Your task to perform on an android device: Open Reddit.com Image 0: 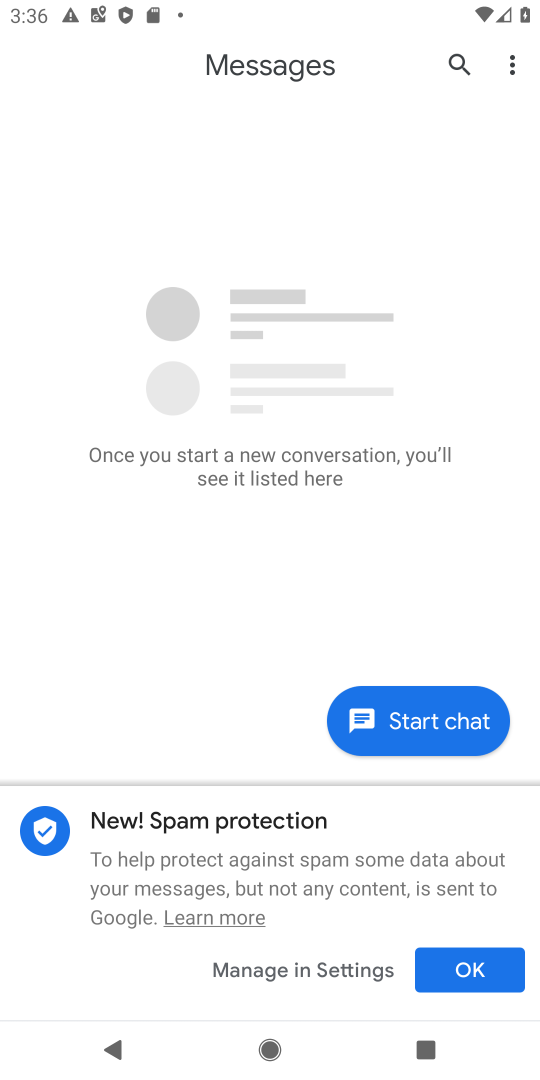
Step 0: press back button
Your task to perform on an android device: Open Reddit.com Image 1: 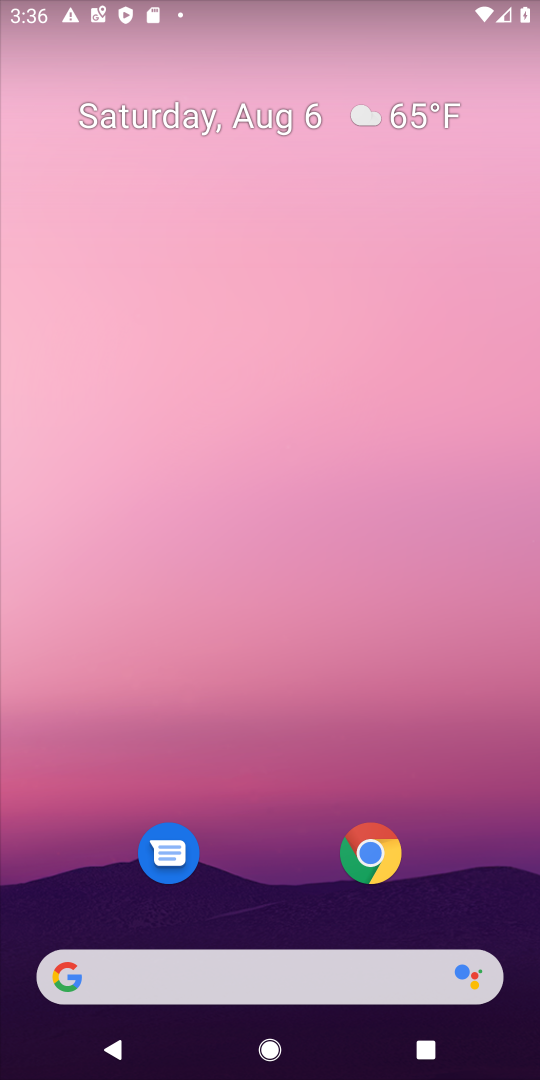
Step 1: click (384, 851)
Your task to perform on an android device: Open Reddit.com Image 2: 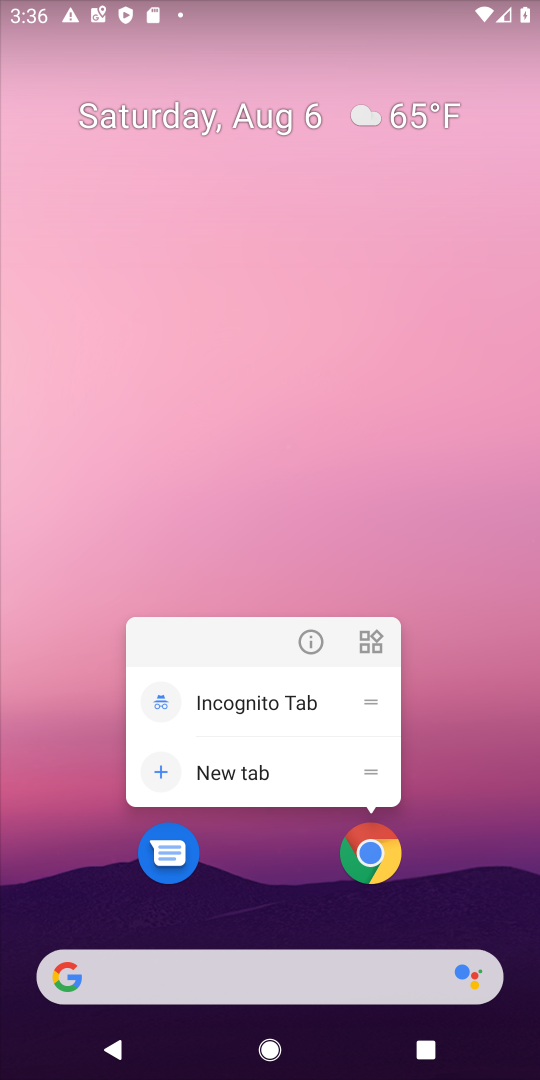
Step 2: click (385, 848)
Your task to perform on an android device: Open Reddit.com Image 3: 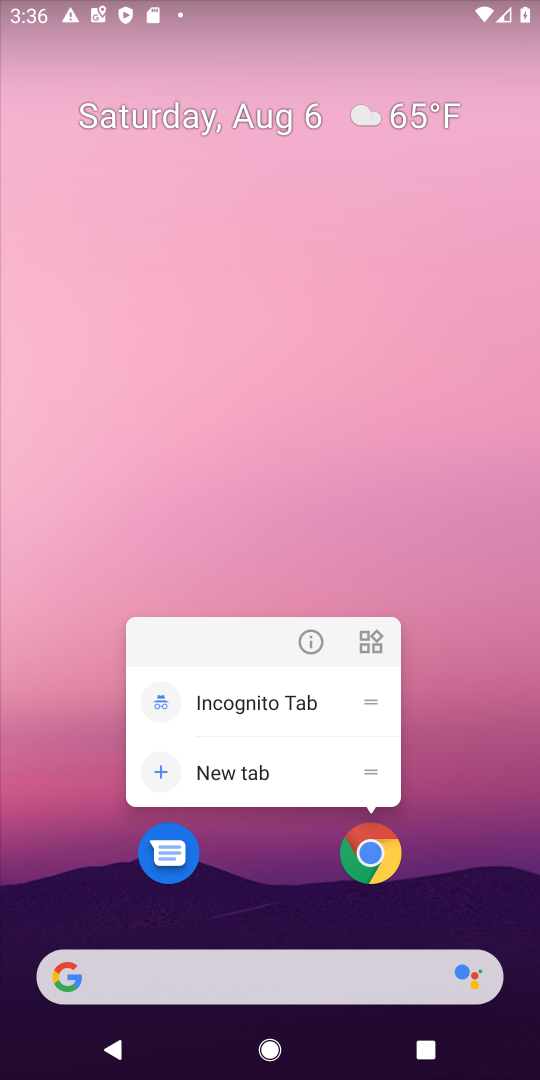
Step 3: click (366, 840)
Your task to perform on an android device: Open Reddit.com Image 4: 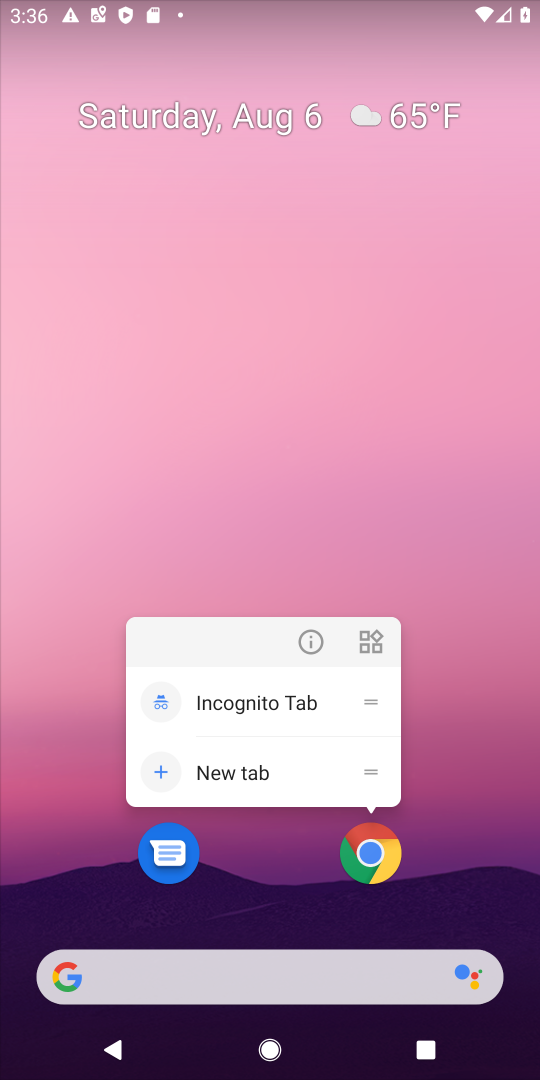
Step 4: click (364, 864)
Your task to perform on an android device: Open Reddit.com Image 5: 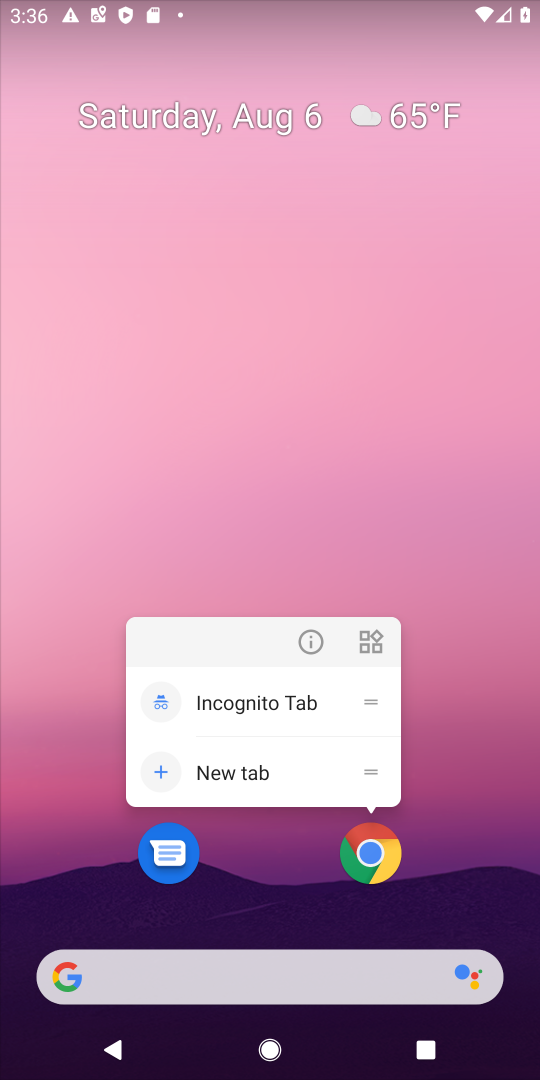
Step 5: click (381, 843)
Your task to perform on an android device: Open Reddit.com Image 6: 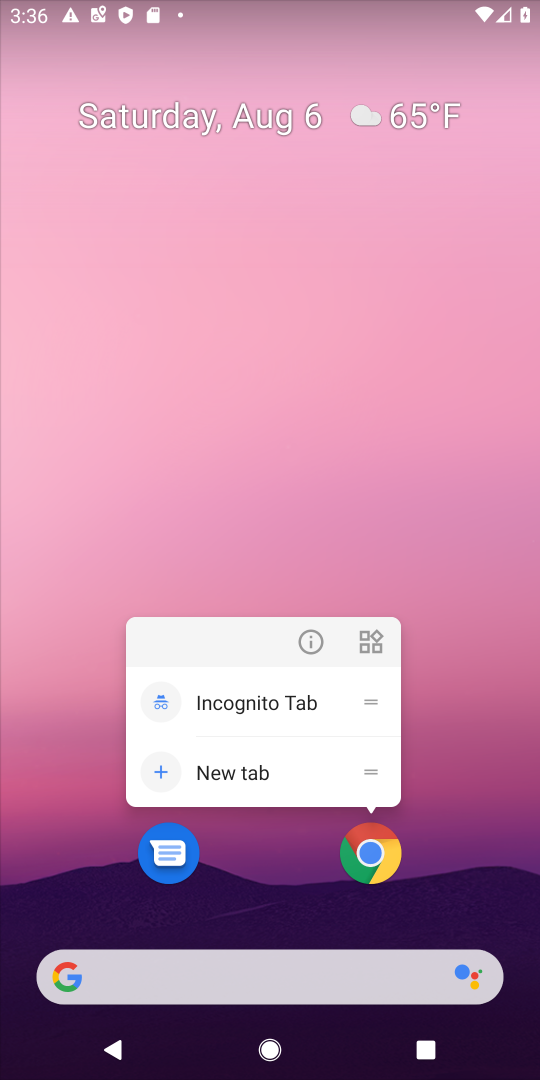
Step 6: click (381, 843)
Your task to perform on an android device: Open Reddit.com Image 7: 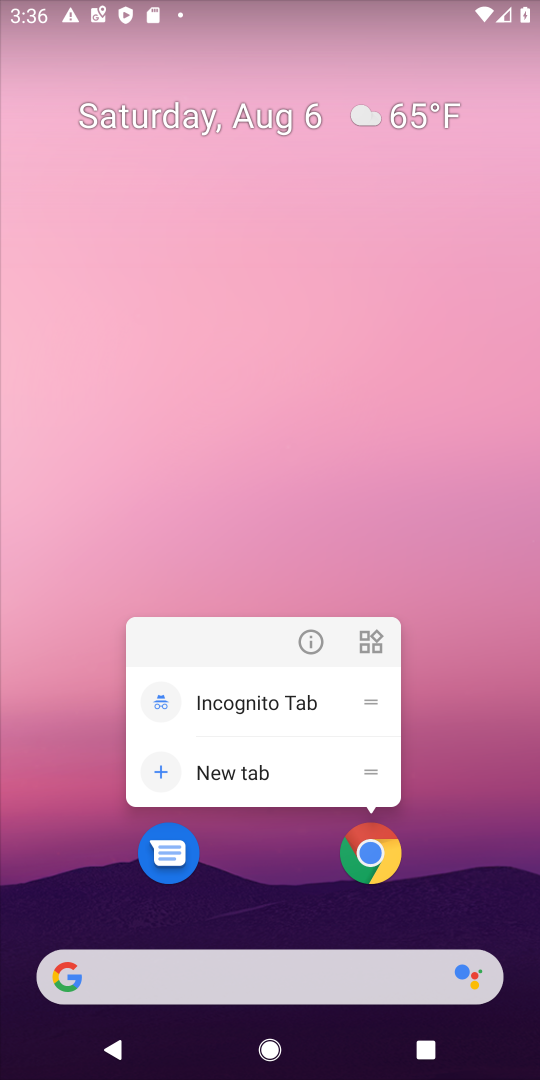
Step 7: click (381, 843)
Your task to perform on an android device: Open Reddit.com Image 8: 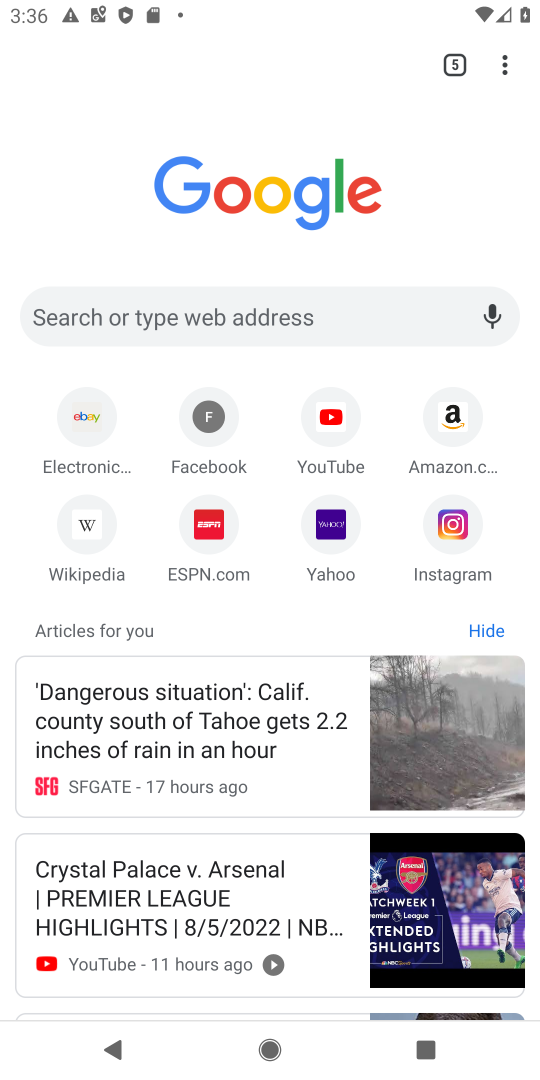
Step 8: click (232, 316)
Your task to perform on an android device: Open Reddit.com Image 9: 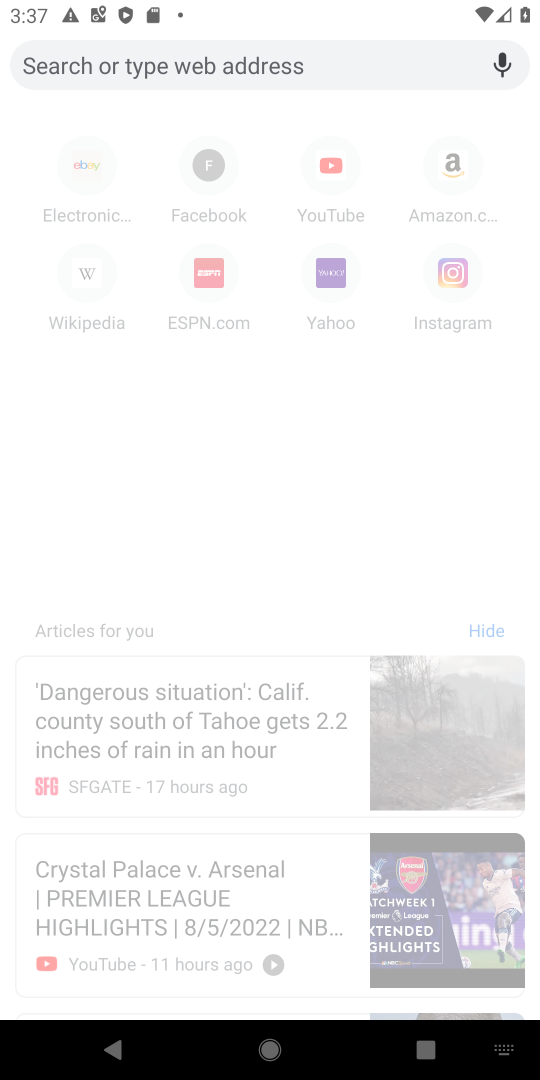
Step 9: type "reddit"
Your task to perform on an android device: Open Reddit.com Image 10: 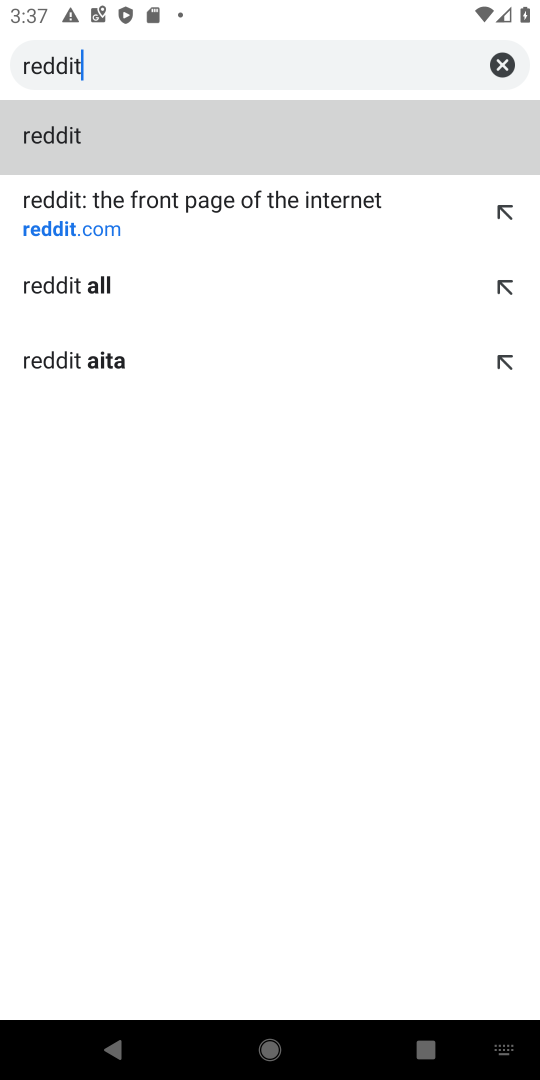
Step 10: click (84, 213)
Your task to perform on an android device: Open Reddit.com Image 11: 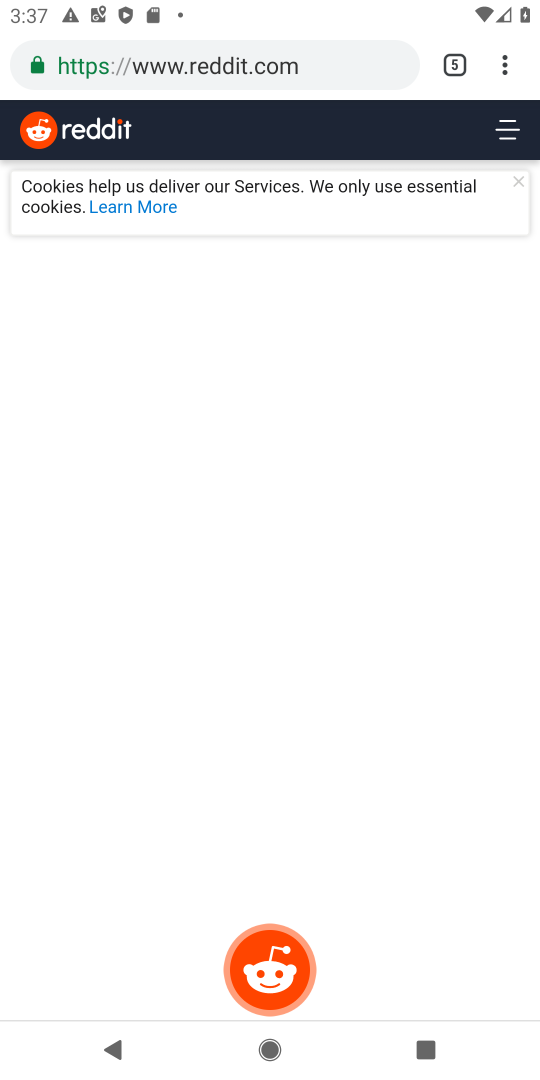
Step 11: task complete